Your task to perform on an android device: open device folders in google photos Image 0: 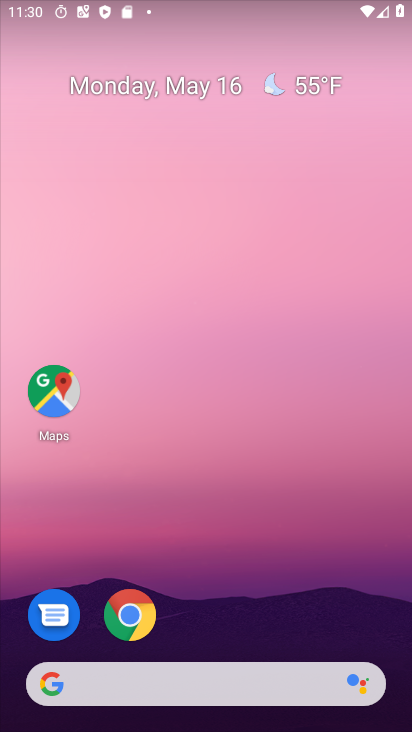
Step 0: press home button
Your task to perform on an android device: open device folders in google photos Image 1: 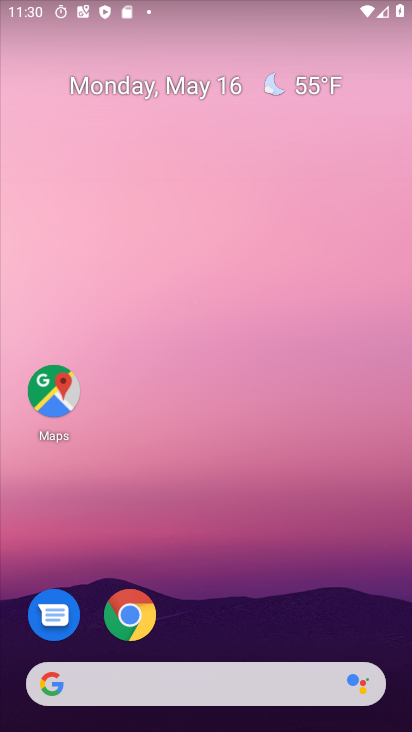
Step 1: drag from (243, 550) to (256, 3)
Your task to perform on an android device: open device folders in google photos Image 2: 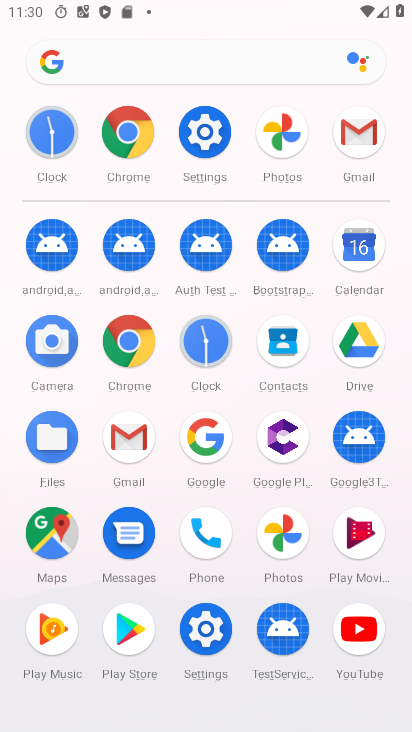
Step 2: click (276, 652)
Your task to perform on an android device: open device folders in google photos Image 3: 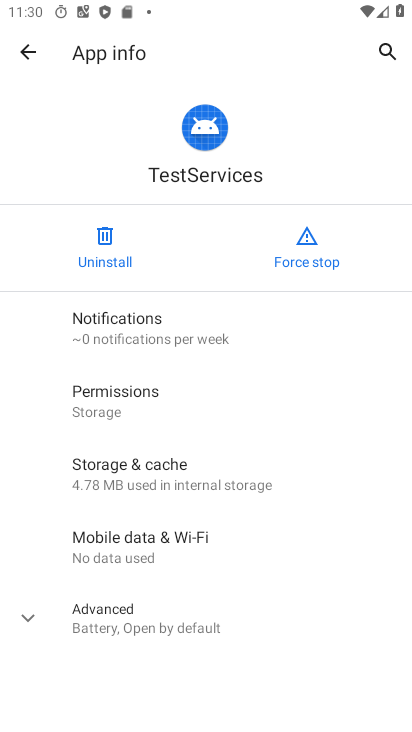
Step 3: press home button
Your task to perform on an android device: open device folders in google photos Image 4: 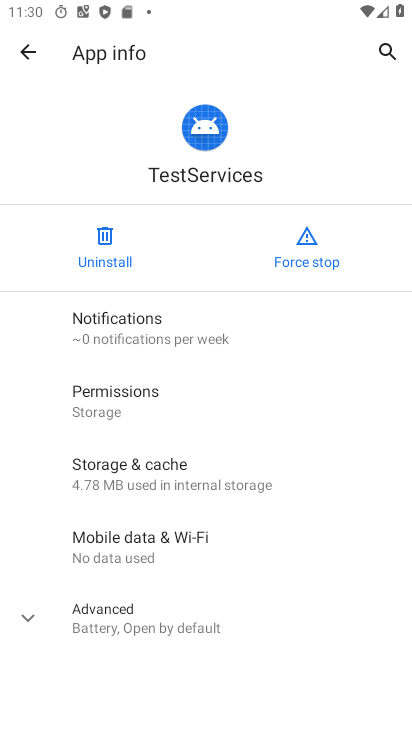
Step 4: press home button
Your task to perform on an android device: open device folders in google photos Image 5: 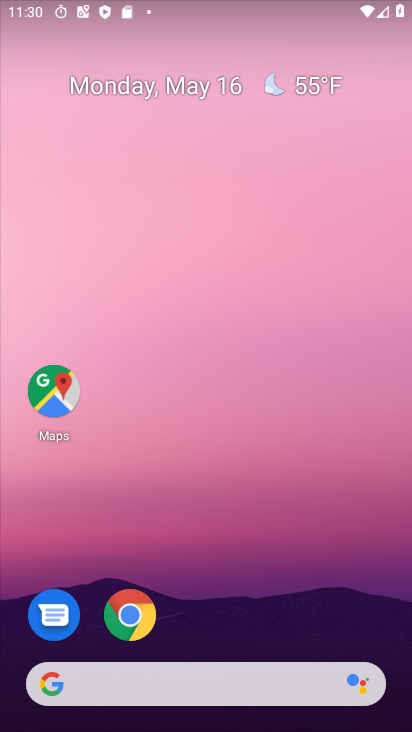
Step 5: drag from (317, 610) to (317, 8)
Your task to perform on an android device: open device folders in google photos Image 6: 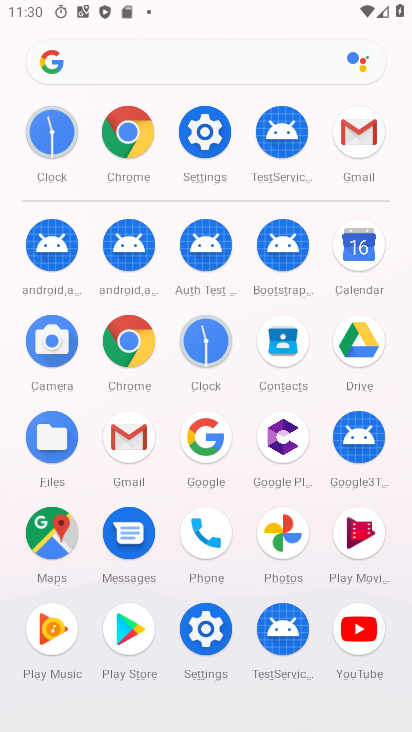
Step 6: click (297, 551)
Your task to perform on an android device: open device folders in google photos Image 7: 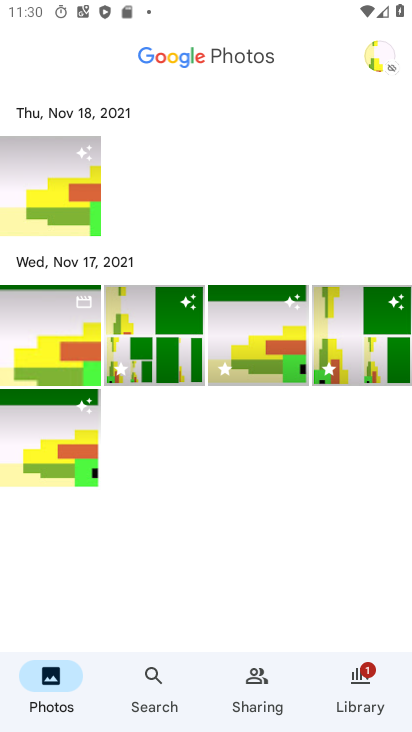
Step 7: click (374, 58)
Your task to perform on an android device: open device folders in google photos Image 8: 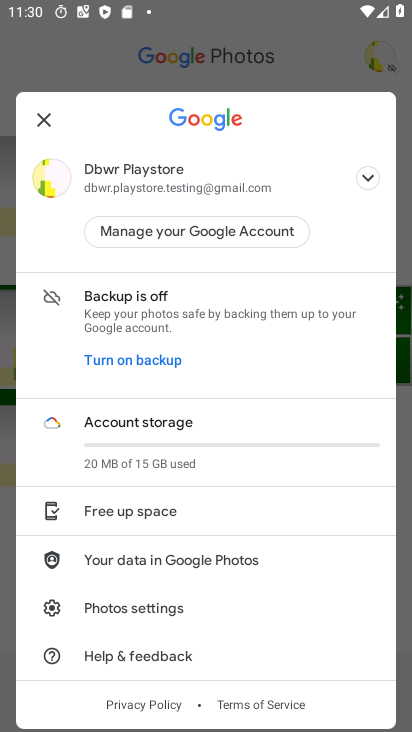
Step 8: click (144, 616)
Your task to perform on an android device: open device folders in google photos Image 9: 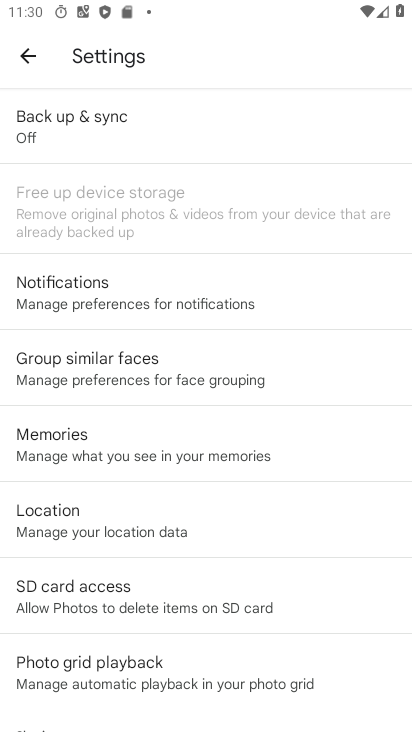
Step 9: task complete